Your task to perform on an android device: Turn off the flashlight Image 0: 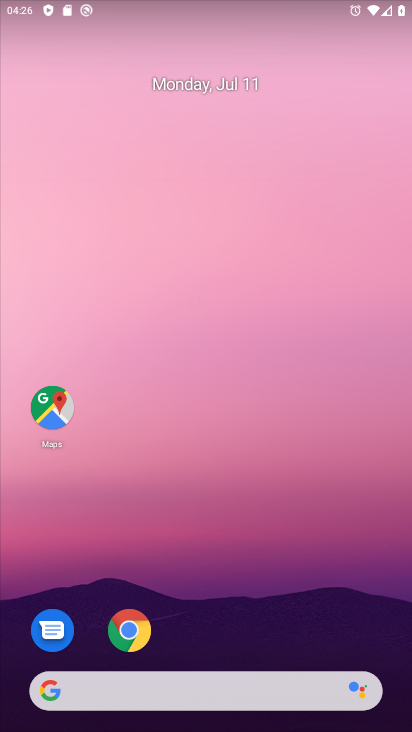
Step 0: press home button
Your task to perform on an android device: Turn off the flashlight Image 1: 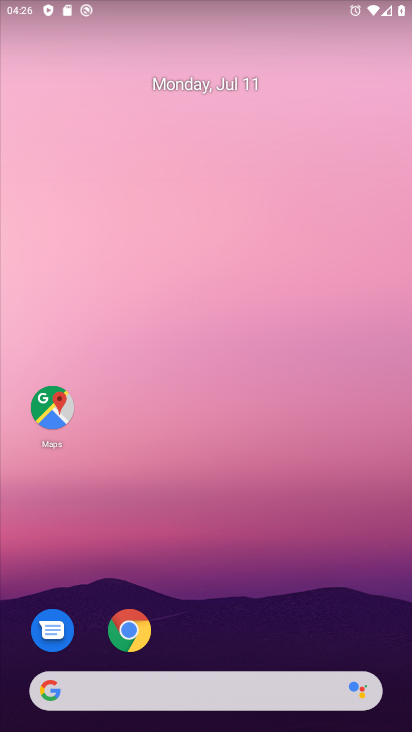
Step 1: drag from (200, 653) to (209, 21)
Your task to perform on an android device: Turn off the flashlight Image 2: 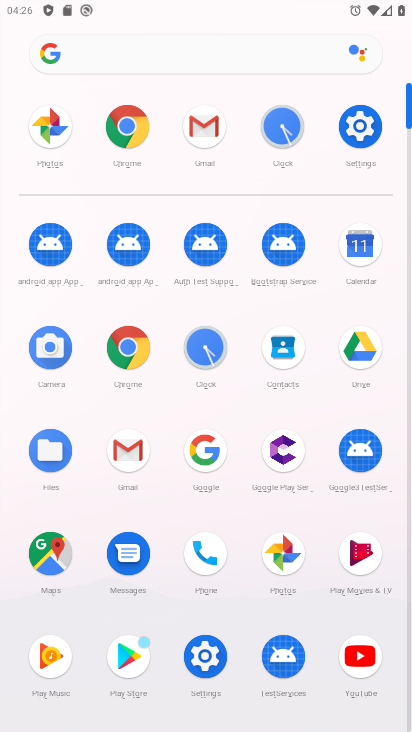
Step 2: click (357, 117)
Your task to perform on an android device: Turn off the flashlight Image 3: 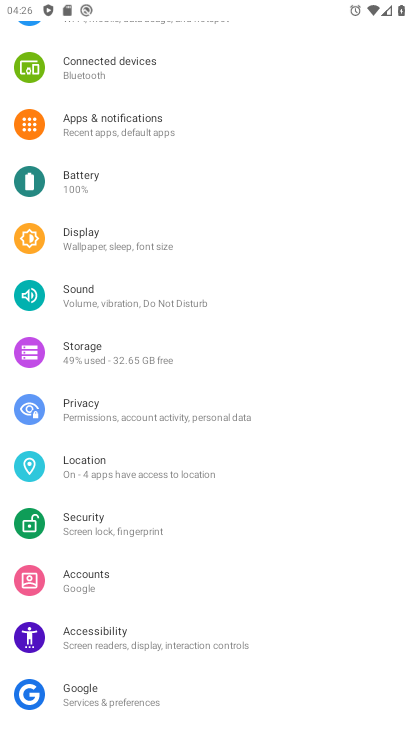
Step 3: drag from (192, 91) to (205, 671)
Your task to perform on an android device: Turn off the flashlight Image 4: 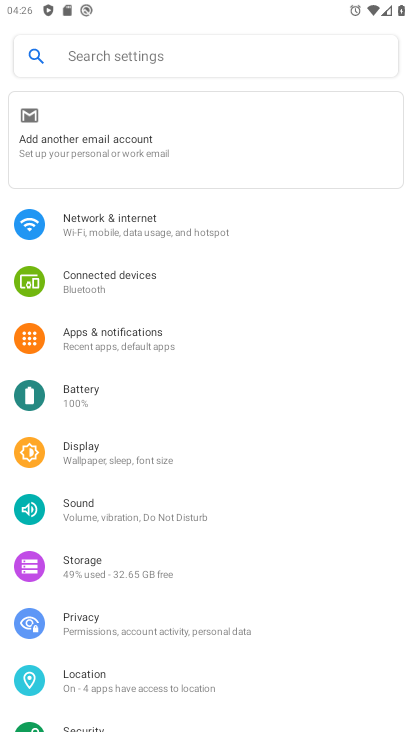
Step 4: click (139, 54)
Your task to perform on an android device: Turn off the flashlight Image 5: 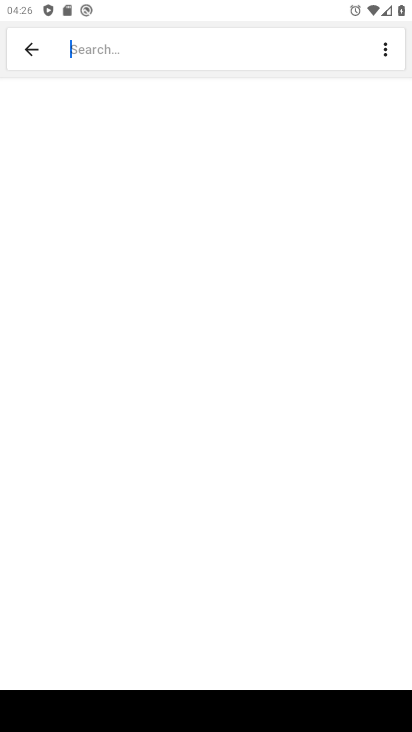
Step 5: type "flashlight"
Your task to perform on an android device: Turn off the flashlight Image 6: 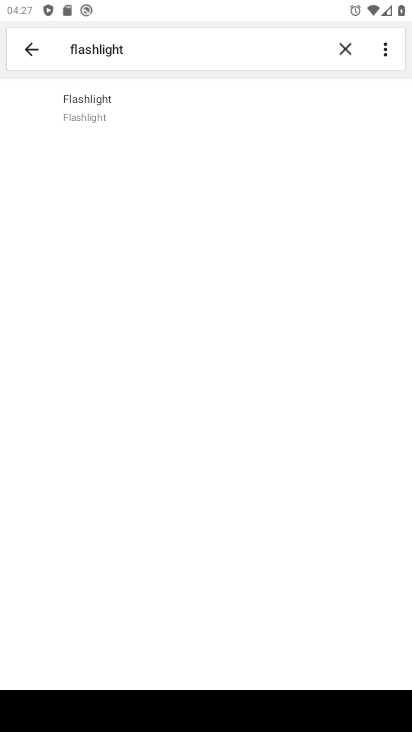
Step 6: click (100, 98)
Your task to perform on an android device: Turn off the flashlight Image 7: 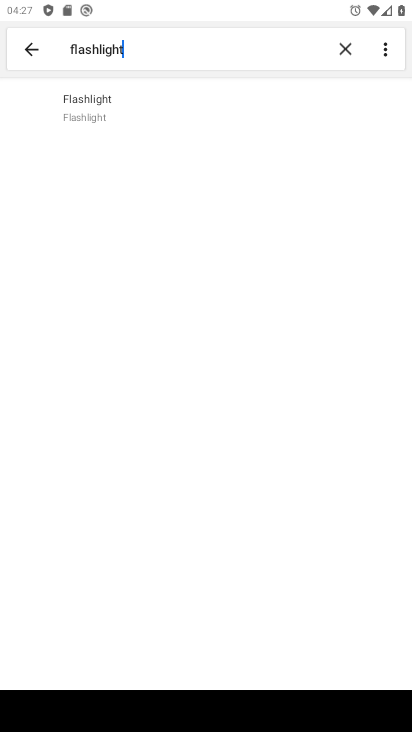
Step 7: task complete